Your task to perform on an android device: Open ESPN.com Image 0: 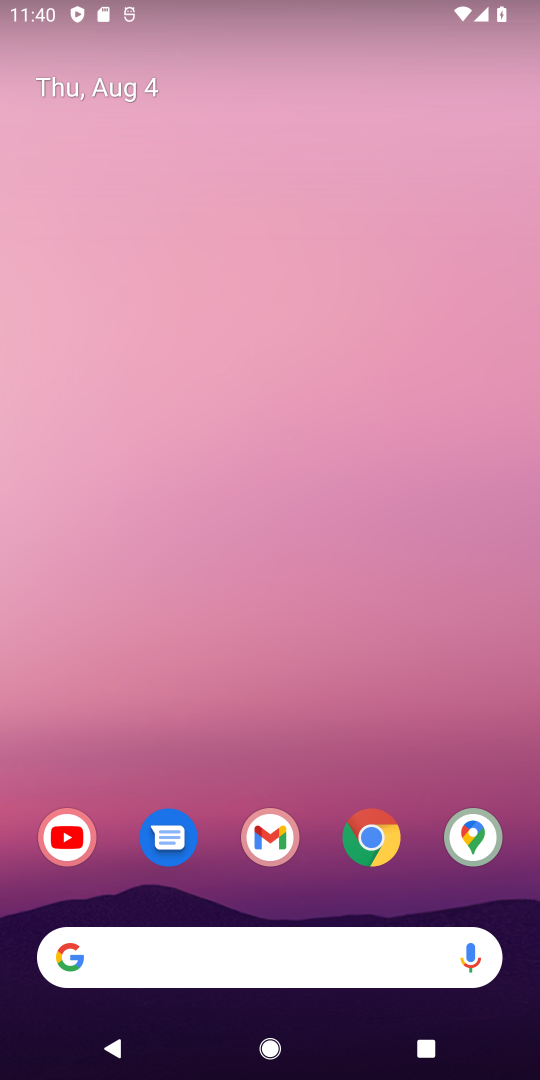
Step 0: click (378, 833)
Your task to perform on an android device: Open ESPN.com Image 1: 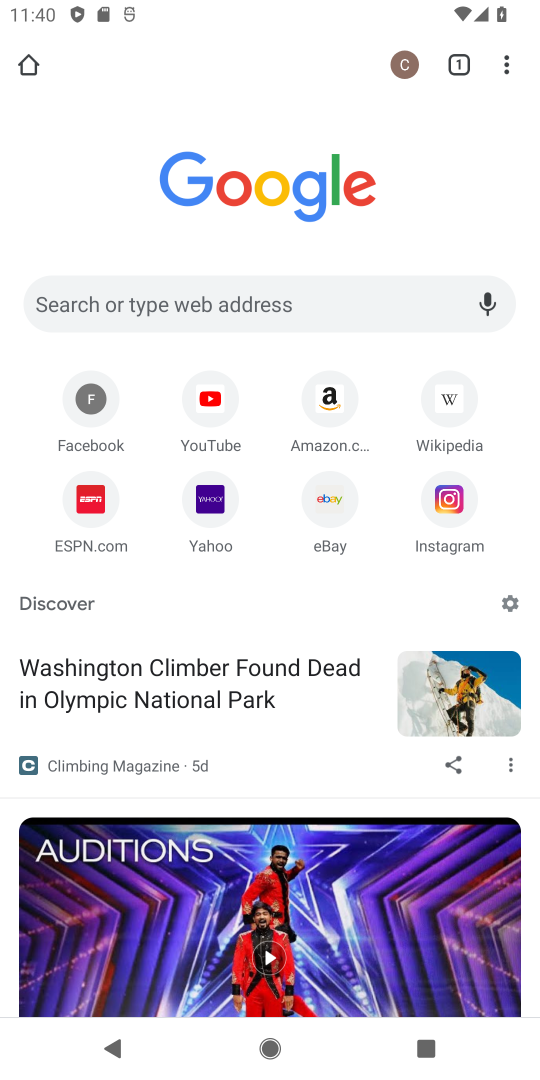
Step 1: click (204, 303)
Your task to perform on an android device: Open ESPN.com Image 2: 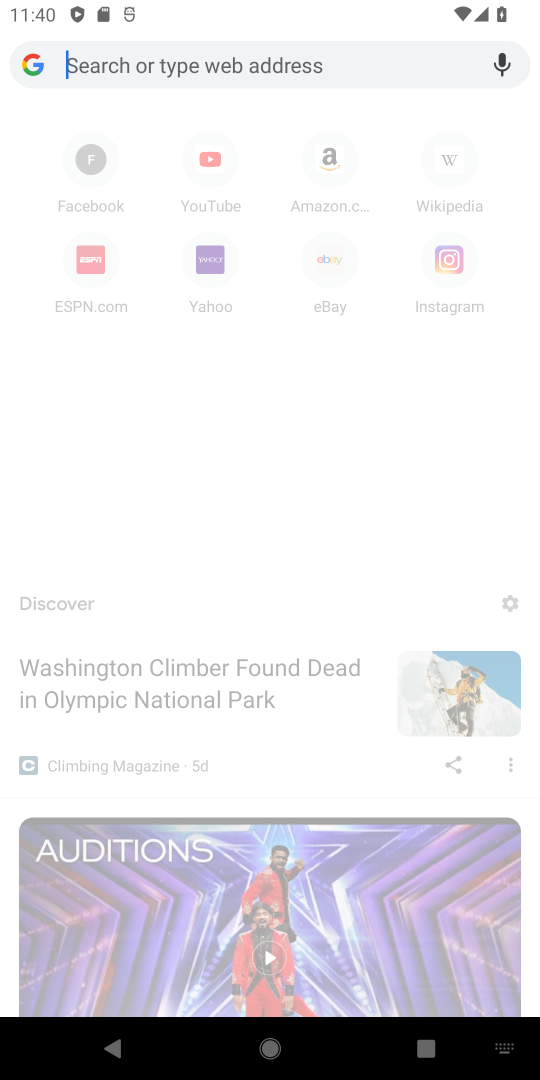
Step 2: type "espn.com"
Your task to perform on an android device: Open ESPN.com Image 3: 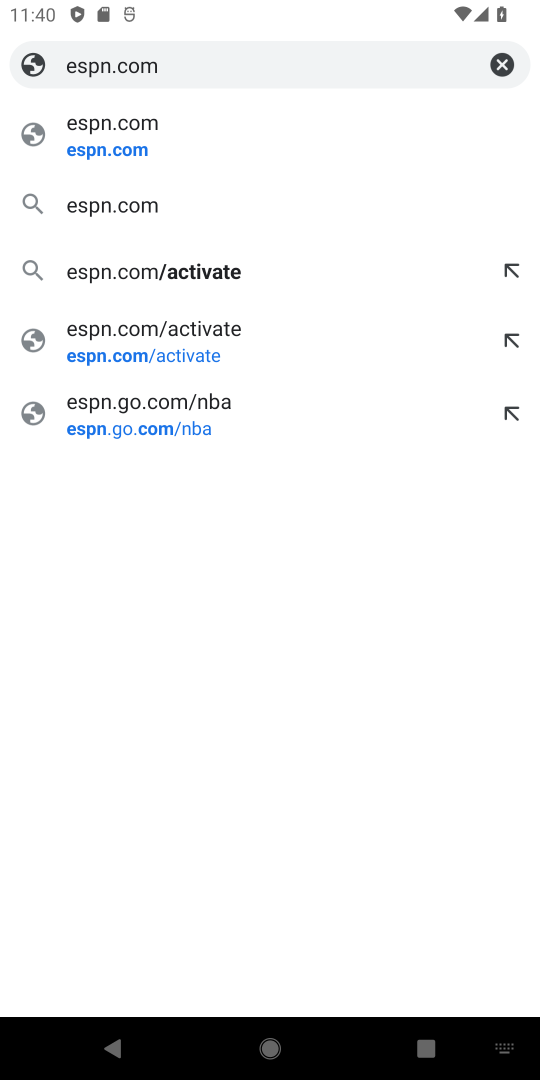
Step 3: click (118, 111)
Your task to perform on an android device: Open ESPN.com Image 4: 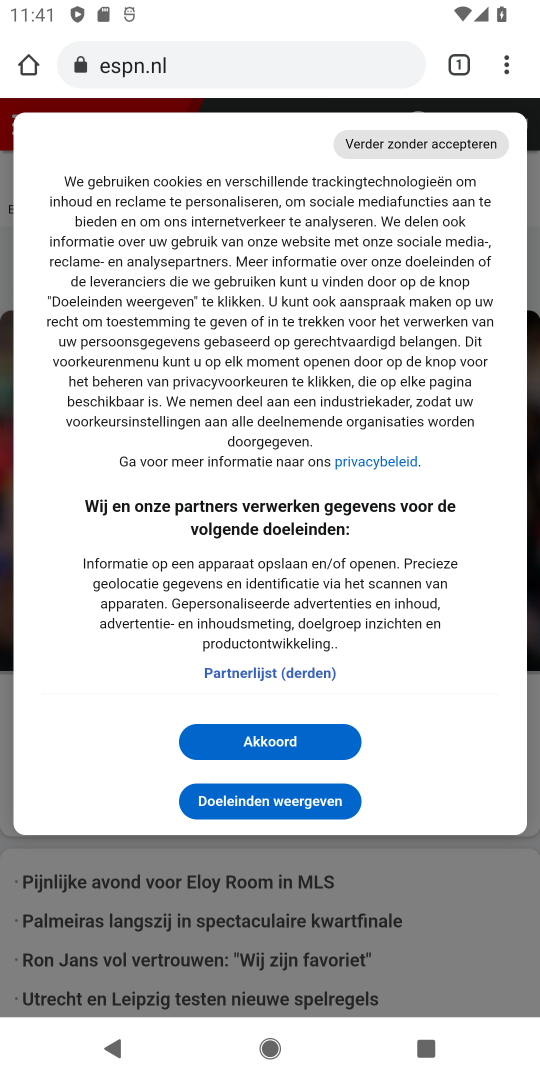
Step 4: task complete